Your task to perform on an android device: Open location settings Image 0: 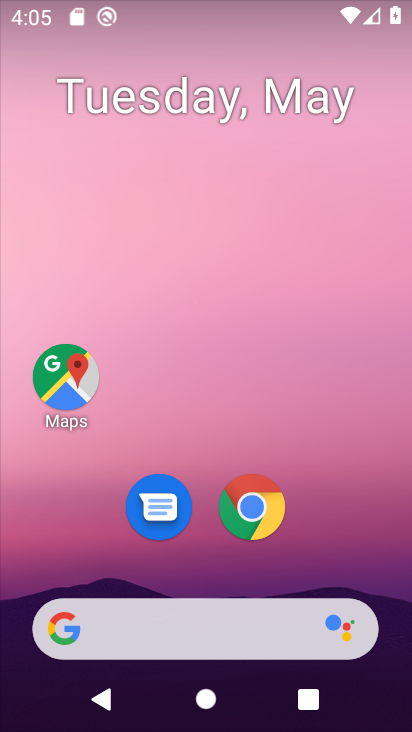
Step 0: drag from (262, 542) to (333, 35)
Your task to perform on an android device: Open location settings Image 1: 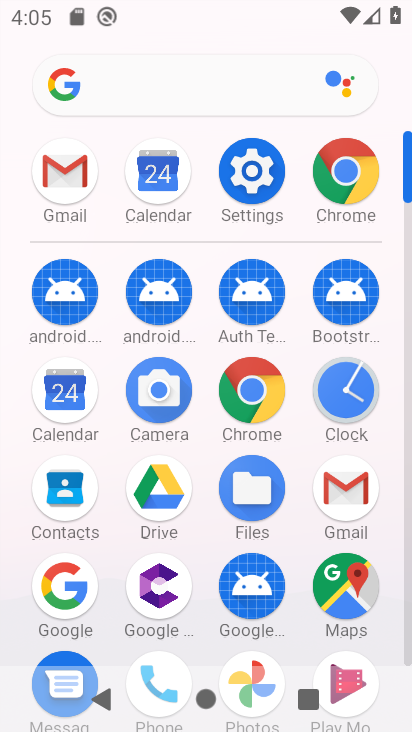
Step 1: click (253, 176)
Your task to perform on an android device: Open location settings Image 2: 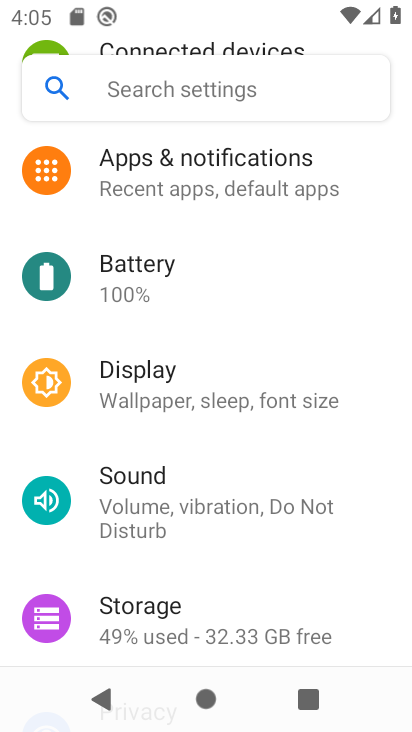
Step 2: drag from (142, 541) to (139, 405)
Your task to perform on an android device: Open location settings Image 3: 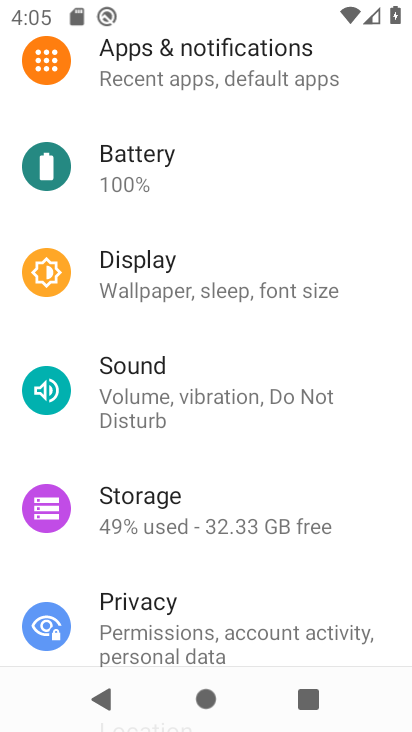
Step 3: drag from (139, 551) to (163, 413)
Your task to perform on an android device: Open location settings Image 4: 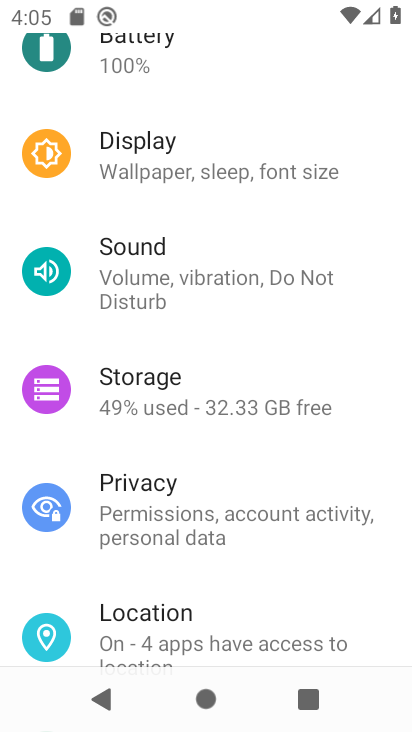
Step 4: click (107, 626)
Your task to perform on an android device: Open location settings Image 5: 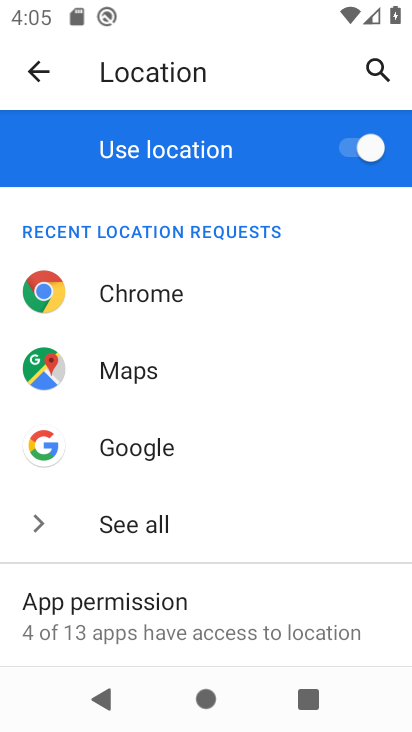
Step 5: task complete